Your task to perform on an android device: Open calendar and show me the second week of next month Image 0: 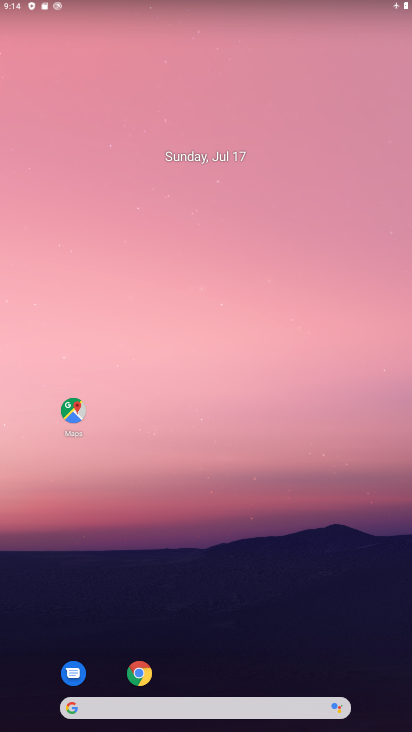
Step 0: drag from (358, 669) to (328, 163)
Your task to perform on an android device: Open calendar and show me the second week of next month Image 1: 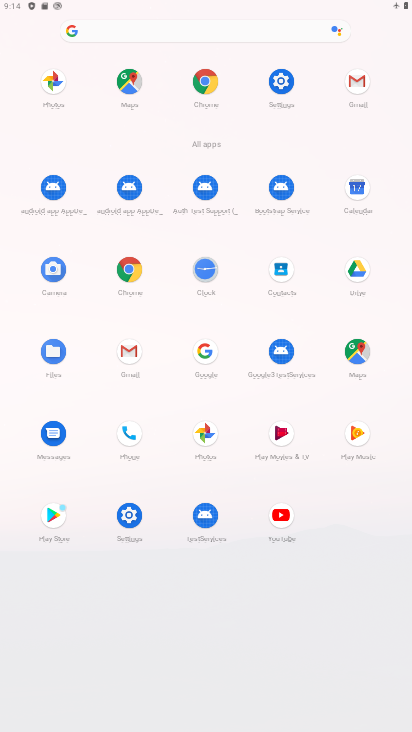
Step 1: click (356, 189)
Your task to perform on an android device: Open calendar and show me the second week of next month Image 2: 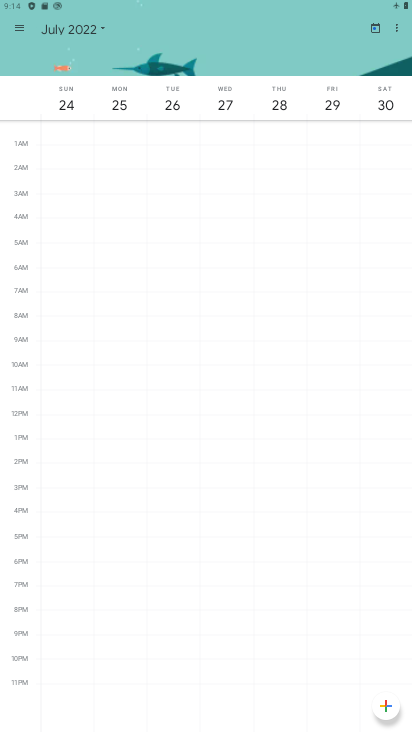
Step 2: click (95, 26)
Your task to perform on an android device: Open calendar and show me the second week of next month Image 3: 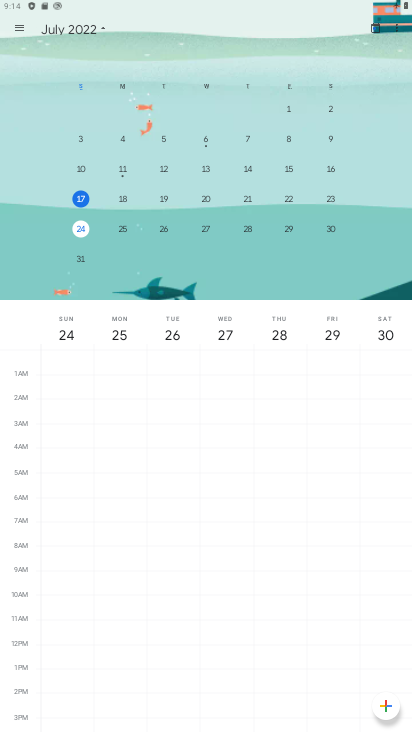
Step 3: drag from (346, 209) to (29, 190)
Your task to perform on an android device: Open calendar and show me the second week of next month Image 4: 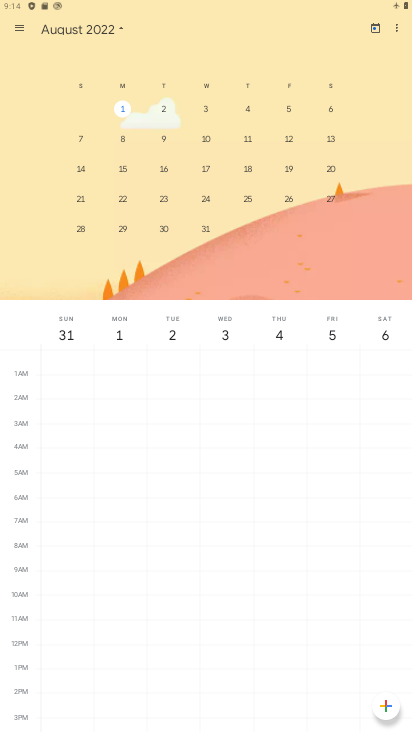
Step 4: click (79, 171)
Your task to perform on an android device: Open calendar and show me the second week of next month Image 5: 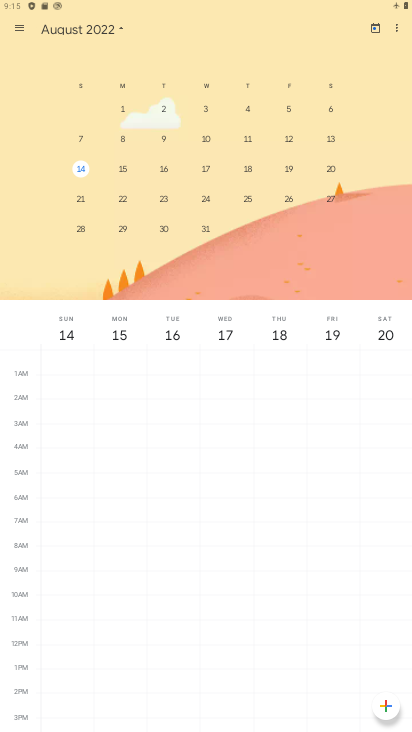
Step 5: task complete